Your task to perform on an android device: See recent photos Image 0: 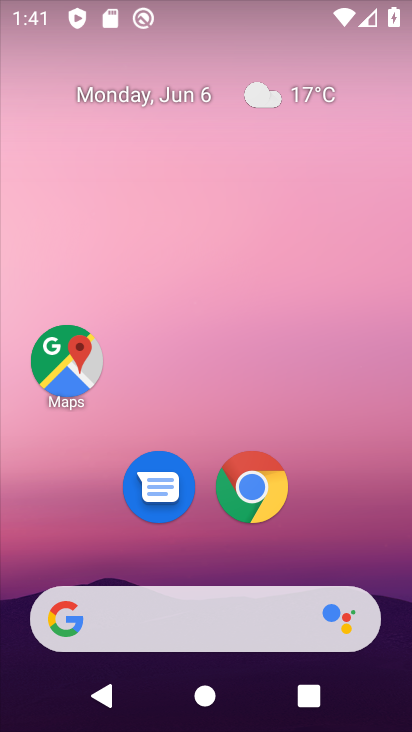
Step 0: drag from (328, 555) to (309, 55)
Your task to perform on an android device: See recent photos Image 1: 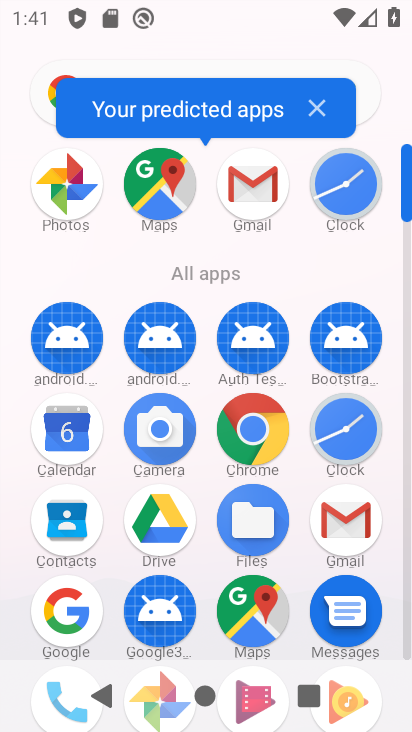
Step 1: drag from (195, 383) to (205, 112)
Your task to perform on an android device: See recent photos Image 2: 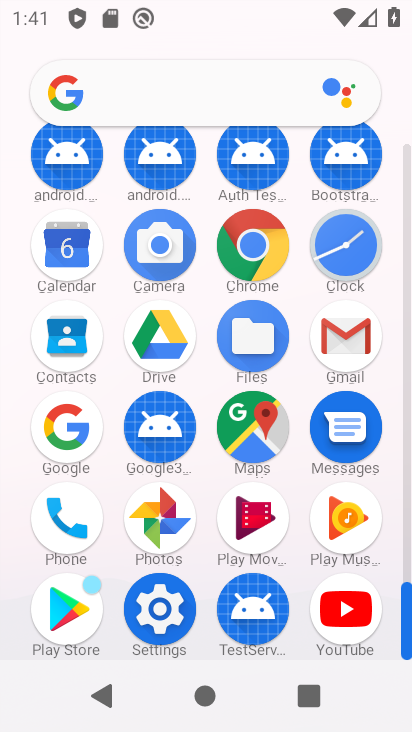
Step 2: click (154, 503)
Your task to perform on an android device: See recent photos Image 3: 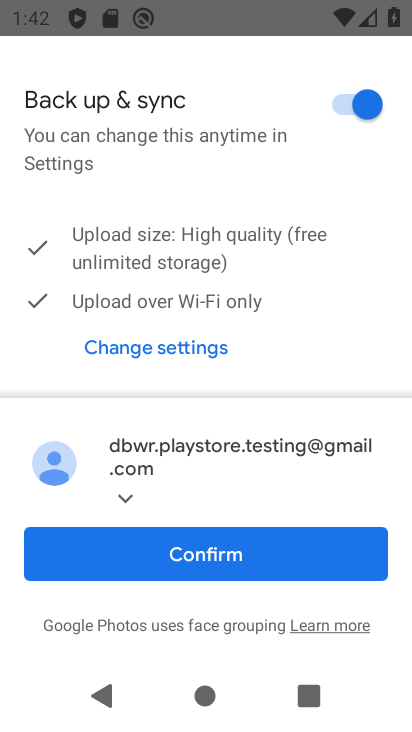
Step 3: click (304, 554)
Your task to perform on an android device: See recent photos Image 4: 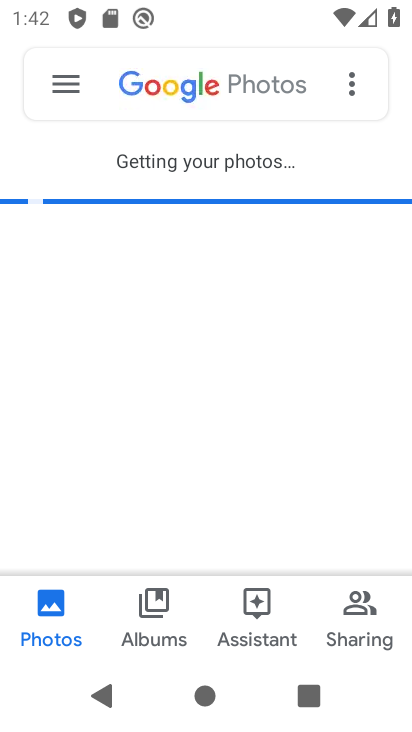
Step 4: click (30, 71)
Your task to perform on an android device: See recent photos Image 5: 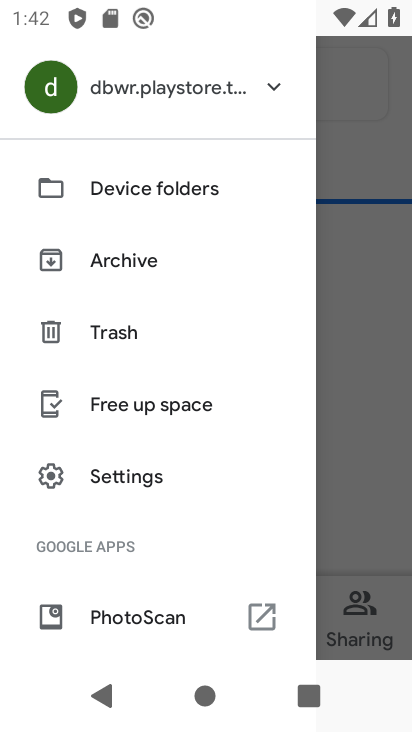
Step 5: click (378, 100)
Your task to perform on an android device: See recent photos Image 6: 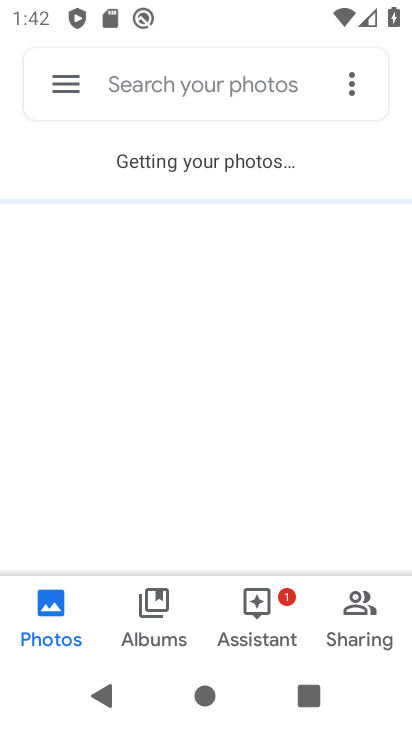
Step 6: click (47, 578)
Your task to perform on an android device: See recent photos Image 7: 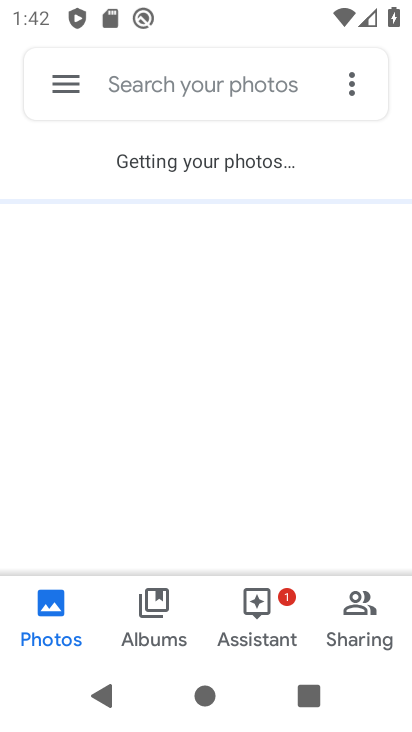
Step 7: click (60, 601)
Your task to perform on an android device: See recent photos Image 8: 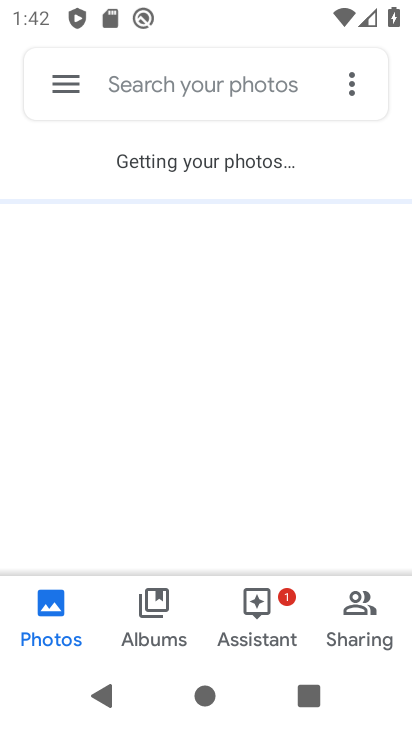
Step 8: task complete